Your task to perform on an android device: Check the weather Image 0: 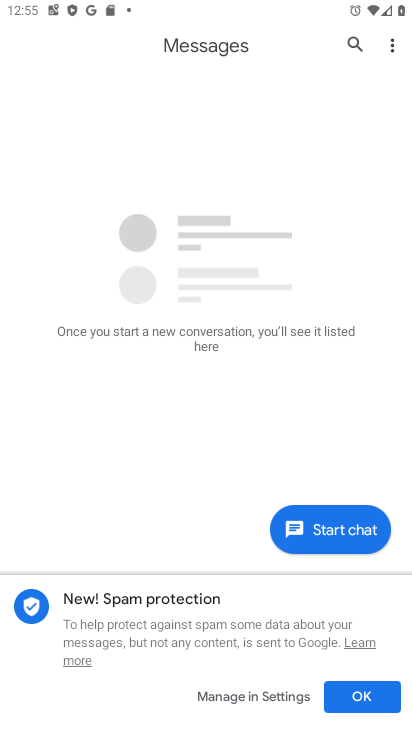
Step 0: press home button
Your task to perform on an android device: Check the weather Image 1: 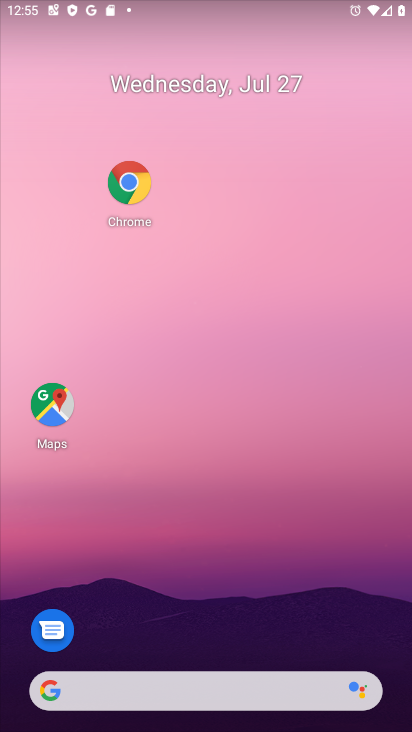
Step 1: click (220, 689)
Your task to perform on an android device: Check the weather Image 2: 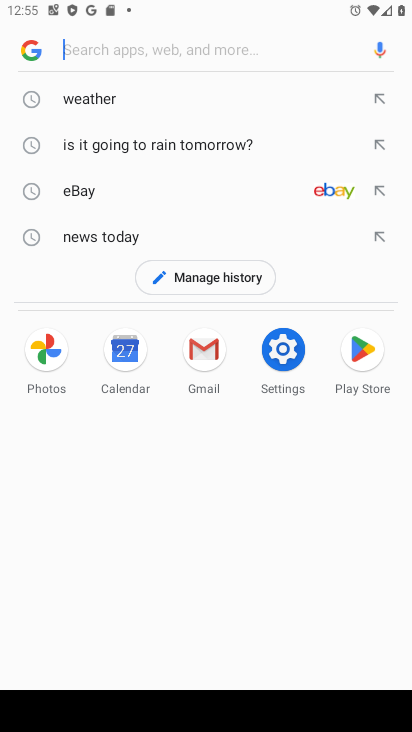
Step 2: click (94, 99)
Your task to perform on an android device: Check the weather Image 3: 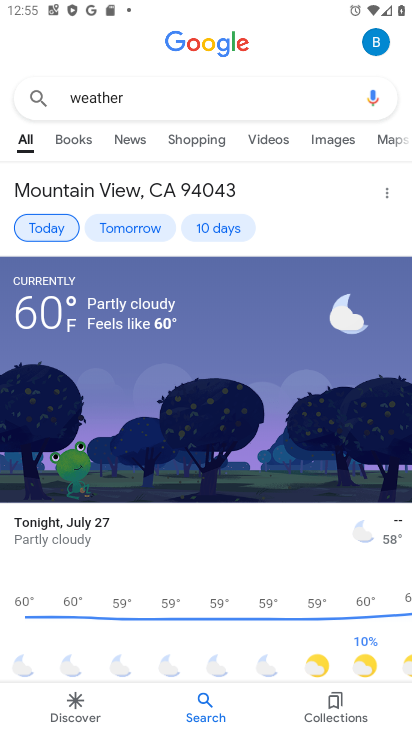
Step 3: task complete